Your task to perform on an android device: turn on data saver in the chrome app Image 0: 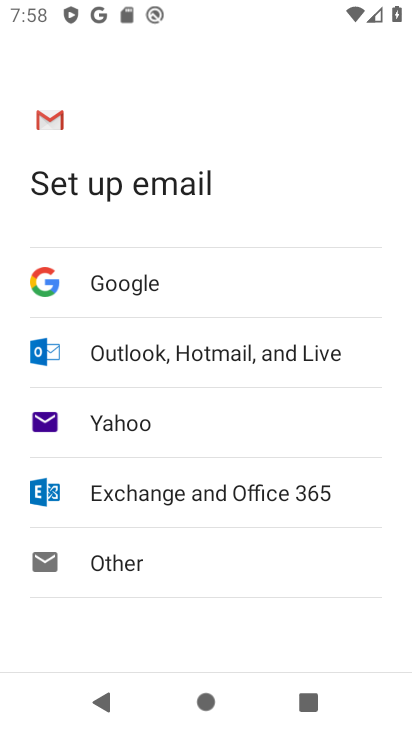
Step 0: press home button
Your task to perform on an android device: turn on data saver in the chrome app Image 1: 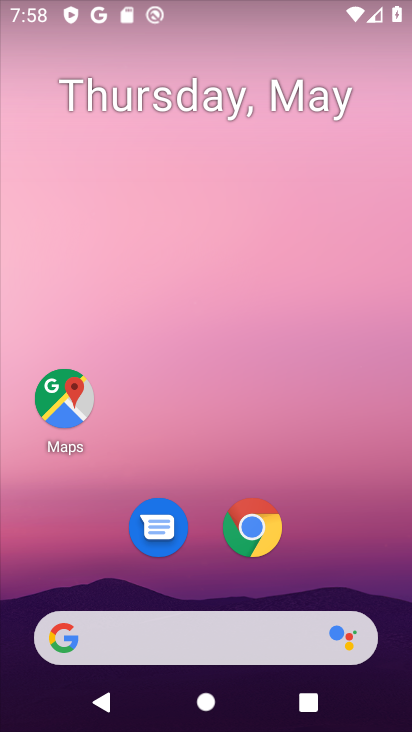
Step 1: click (254, 518)
Your task to perform on an android device: turn on data saver in the chrome app Image 2: 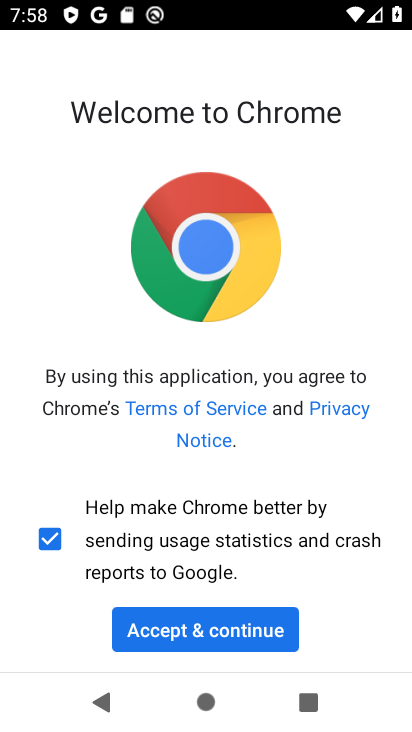
Step 2: click (216, 628)
Your task to perform on an android device: turn on data saver in the chrome app Image 3: 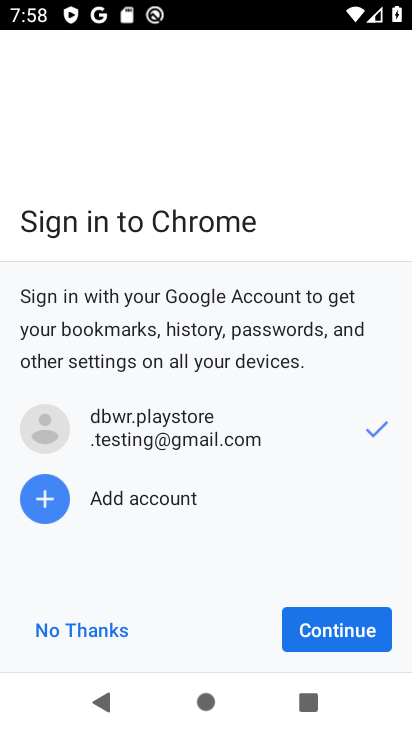
Step 3: click (92, 643)
Your task to perform on an android device: turn on data saver in the chrome app Image 4: 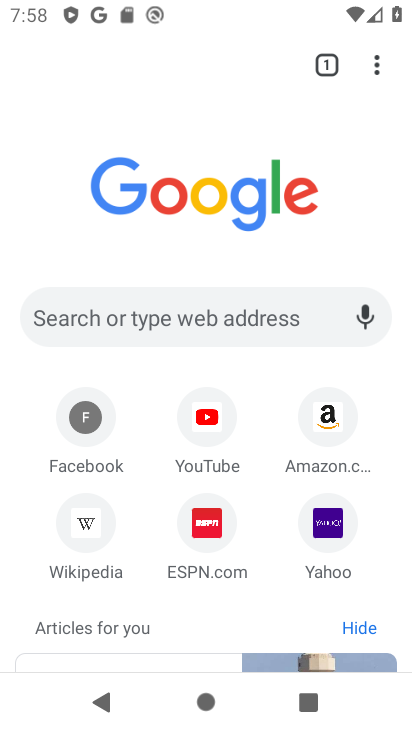
Step 4: click (379, 60)
Your task to perform on an android device: turn on data saver in the chrome app Image 5: 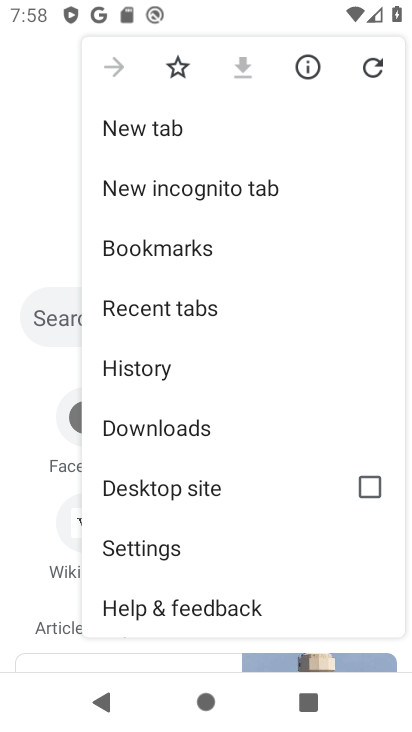
Step 5: click (134, 553)
Your task to perform on an android device: turn on data saver in the chrome app Image 6: 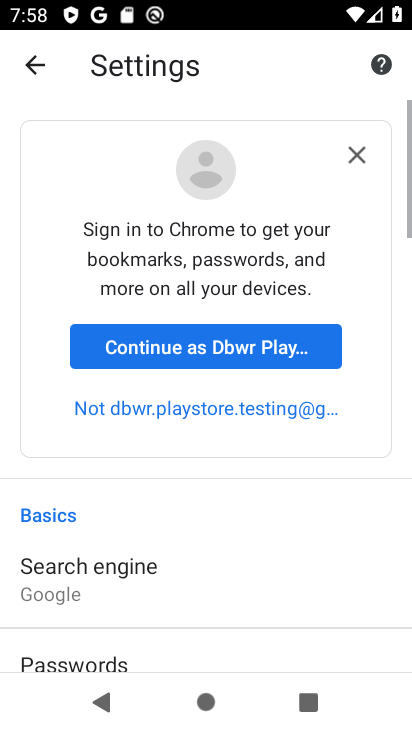
Step 6: drag from (0, 635) to (190, 109)
Your task to perform on an android device: turn on data saver in the chrome app Image 7: 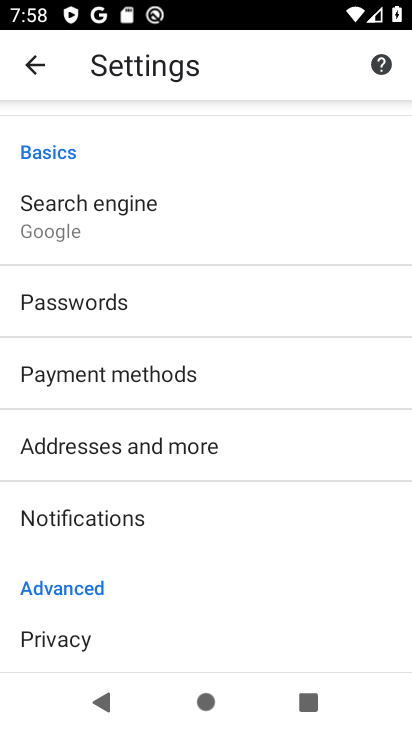
Step 7: drag from (53, 619) to (221, 231)
Your task to perform on an android device: turn on data saver in the chrome app Image 8: 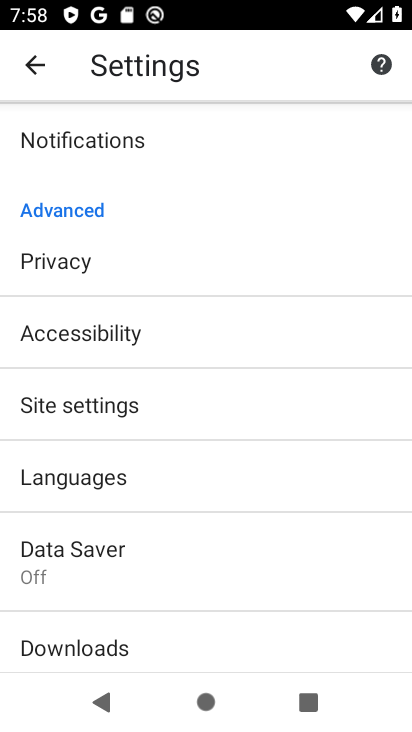
Step 8: click (91, 549)
Your task to perform on an android device: turn on data saver in the chrome app Image 9: 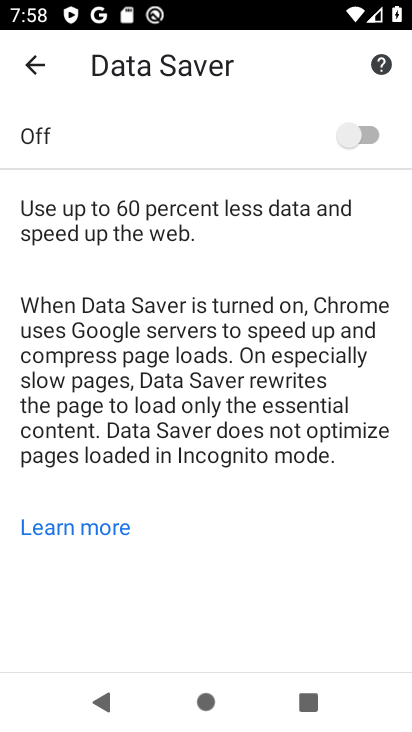
Step 9: click (348, 141)
Your task to perform on an android device: turn on data saver in the chrome app Image 10: 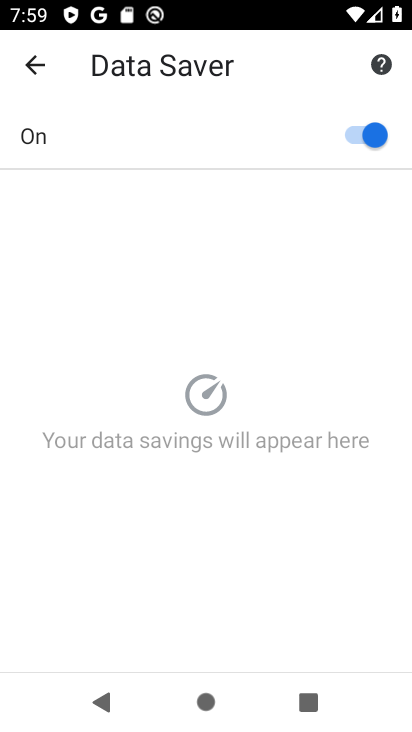
Step 10: task complete